Your task to perform on an android device: What is the recent news? Image 0: 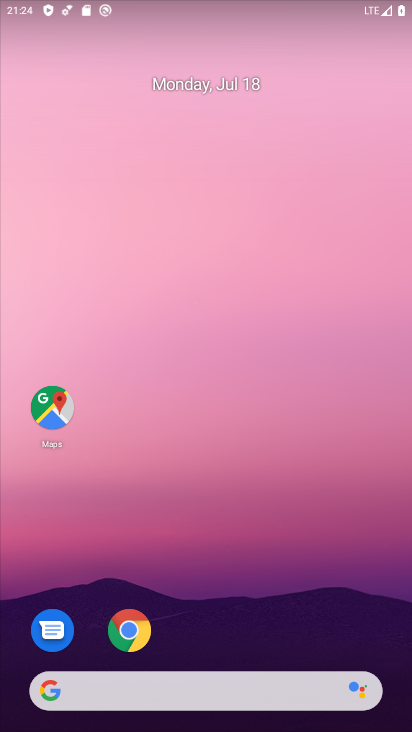
Step 0: drag from (150, 633) to (216, 160)
Your task to perform on an android device: What is the recent news? Image 1: 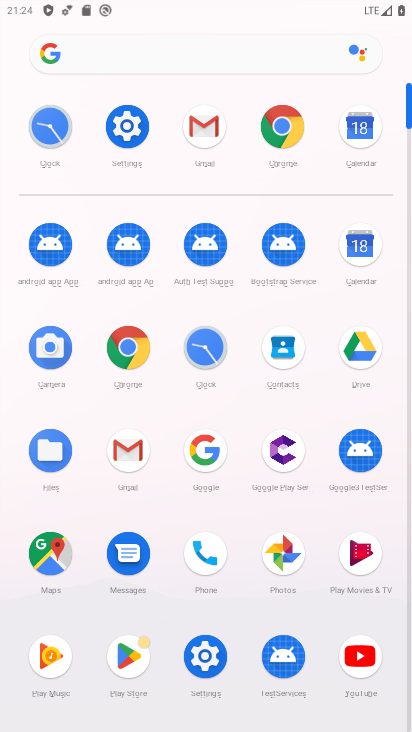
Step 1: click (285, 116)
Your task to perform on an android device: What is the recent news? Image 2: 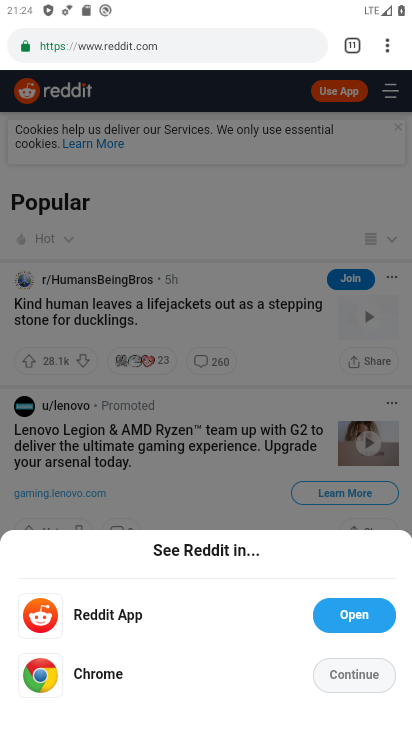
Step 2: click (385, 44)
Your task to perform on an android device: What is the recent news? Image 3: 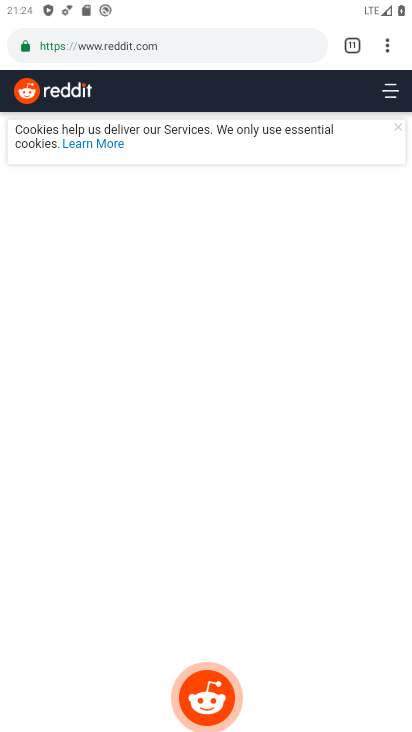
Step 3: click (383, 43)
Your task to perform on an android device: What is the recent news? Image 4: 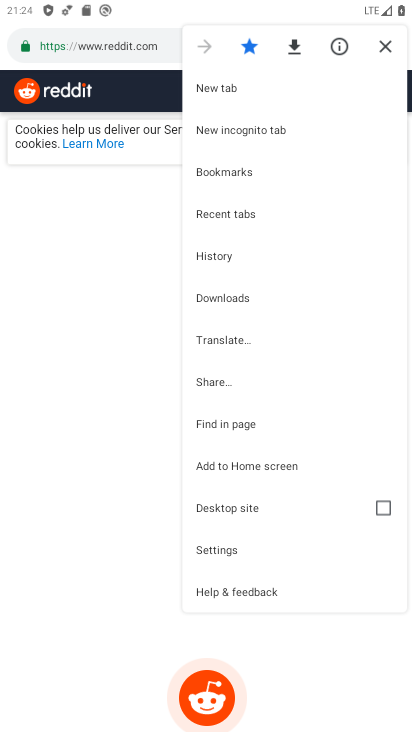
Step 4: click (227, 85)
Your task to perform on an android device: What is the recent news? Image 5: 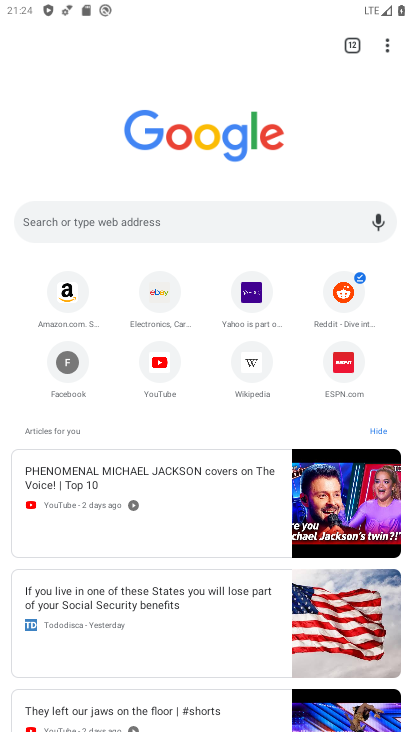
Step 5: click (194, 219)
Your task to perform on an android device: What is the recent news? Image 6: 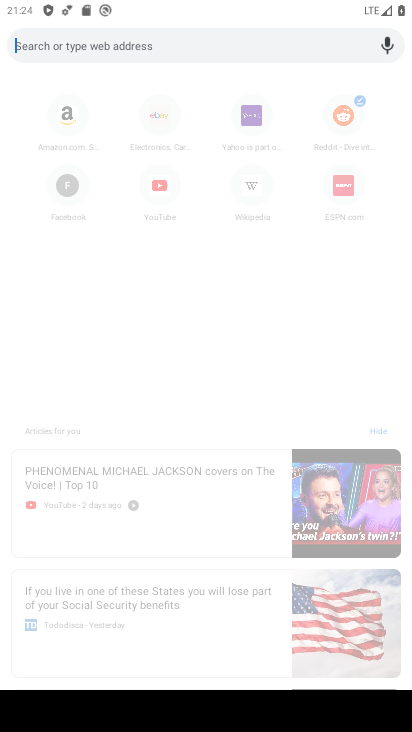
Step 6: type "What is the recent news "
Your task to perform on an android device: What is the recent news? Image 7: 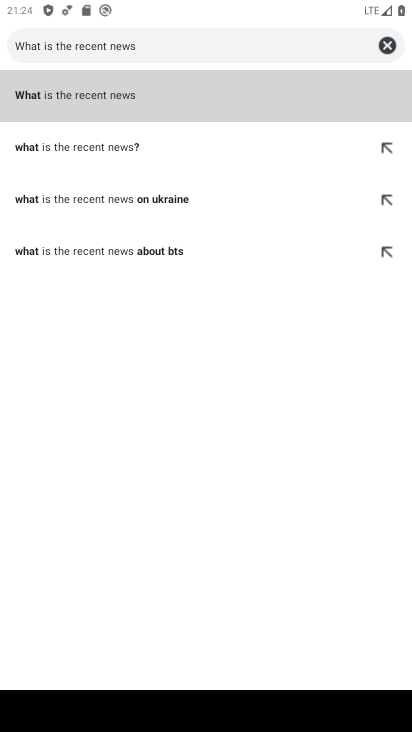
Step 7: click (109, 83)
Your task to perform on an android device: What is the recent news? Image 8: 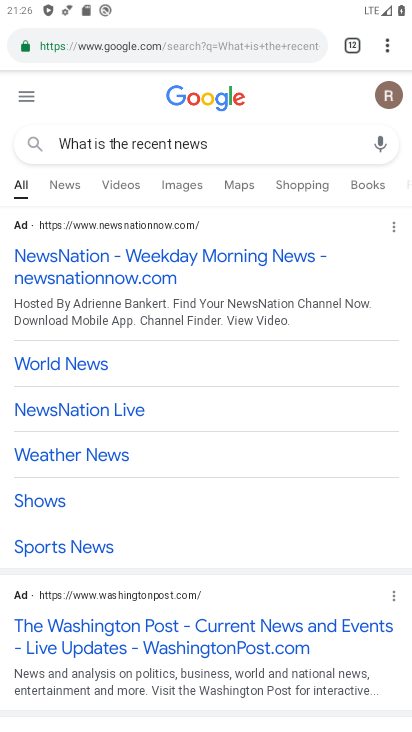
Step 8: task complete